Your task to perform on an android device: turn off notifications in google photos Image 0: 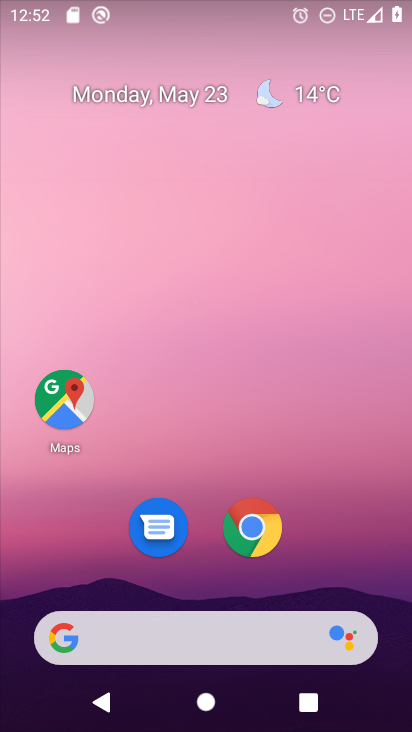
Step 0: drag from (373, 593) to (297, 188)
Your task to perform on an android device: turn off notifications in google photos Image 1: 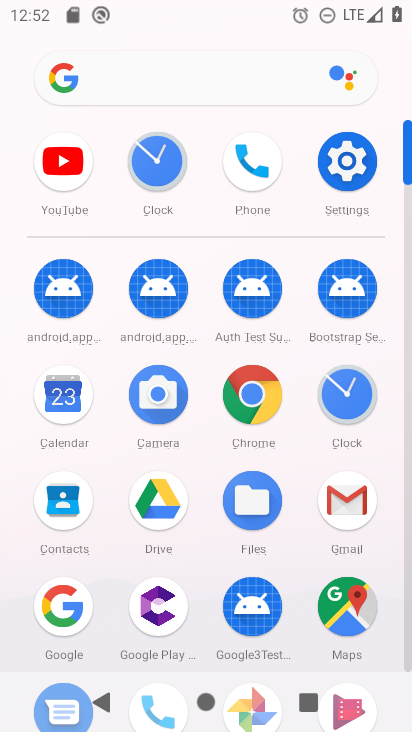
Step 1: click (406, 635)
Your task to perform on an android device: turn off notifications in google photos Image 2: 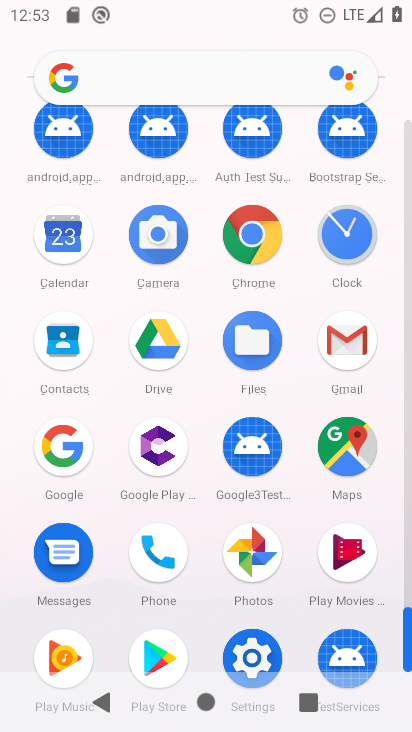
Step 2: click (254, 562)
Your task to perform on an android device: turn off notifications in google photos Image 3: 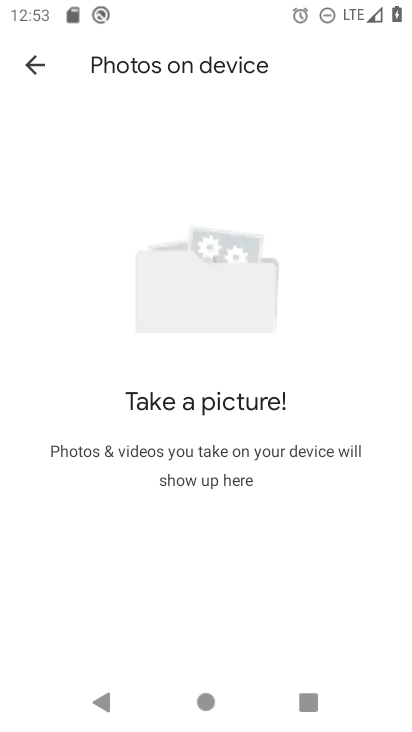
Step 3: task complete